Your task to perform on an android device: Open Google Chrome and click the shortcut for Amazon.com Image 0: 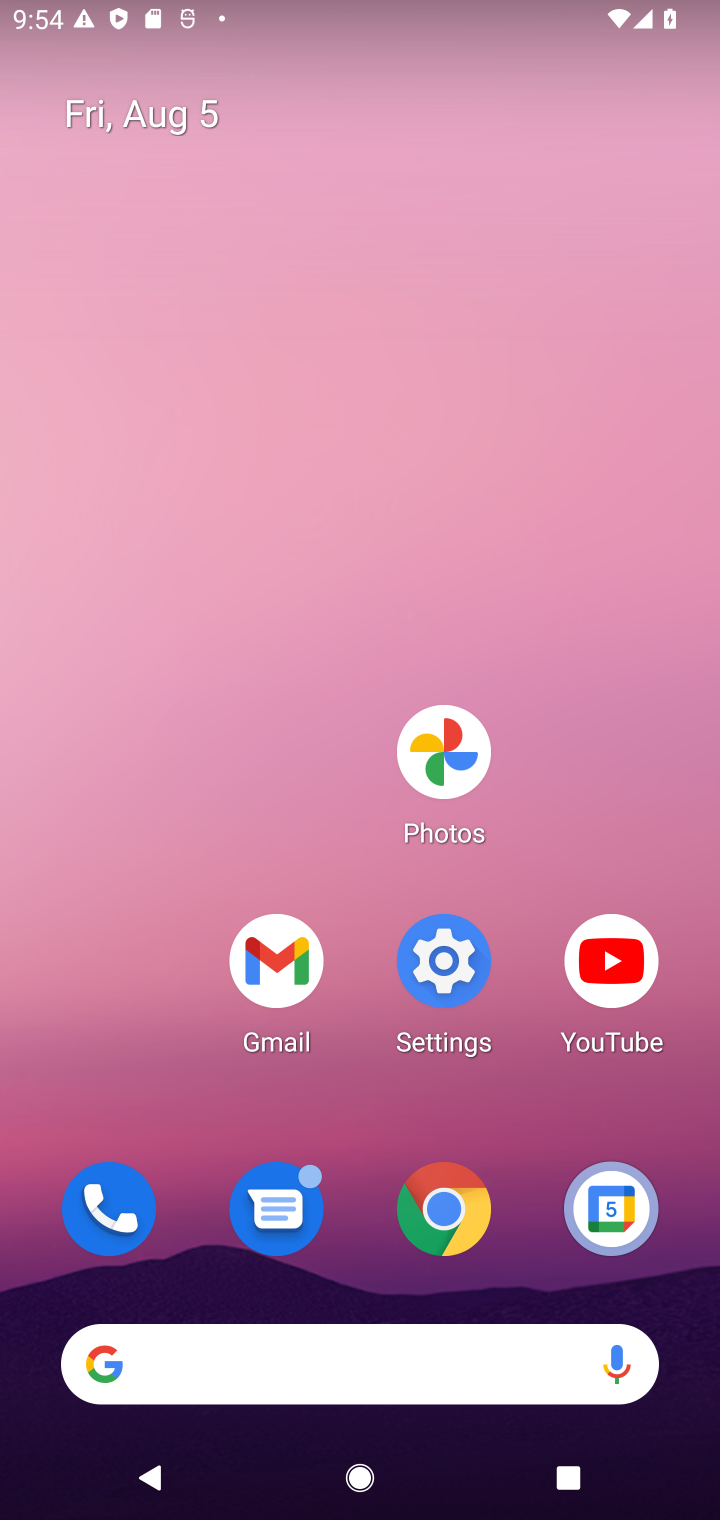
Step 0: drag from (368, 1292) to (403, 220)
Your task to perform on an android device: Open Google Chrome and click the shortcut for Amazon.com Image 1: 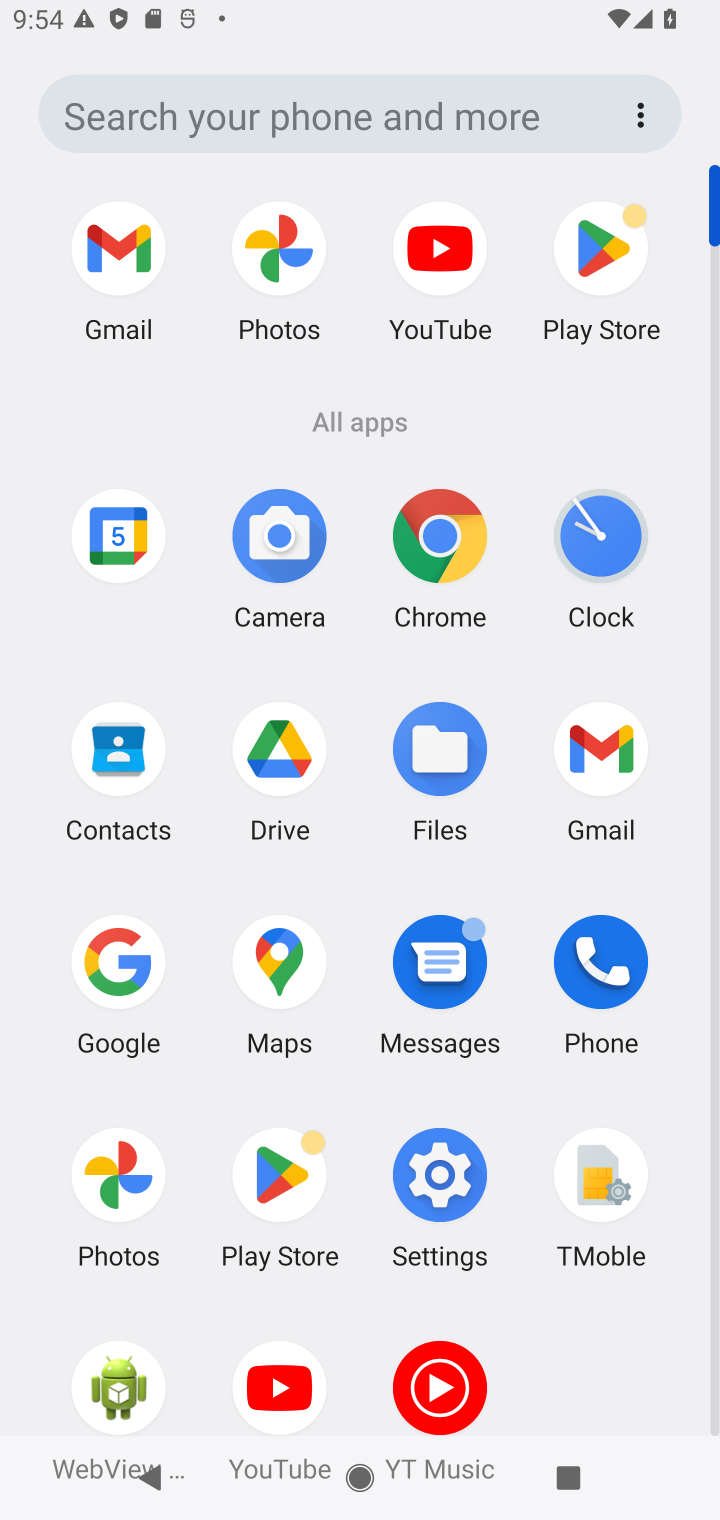
Step 1: drag from (340, 1244) to (373, 406)
Your task to perform on an android device: Open Google Chrome and click the shortcut for Amazon.com Image 2: 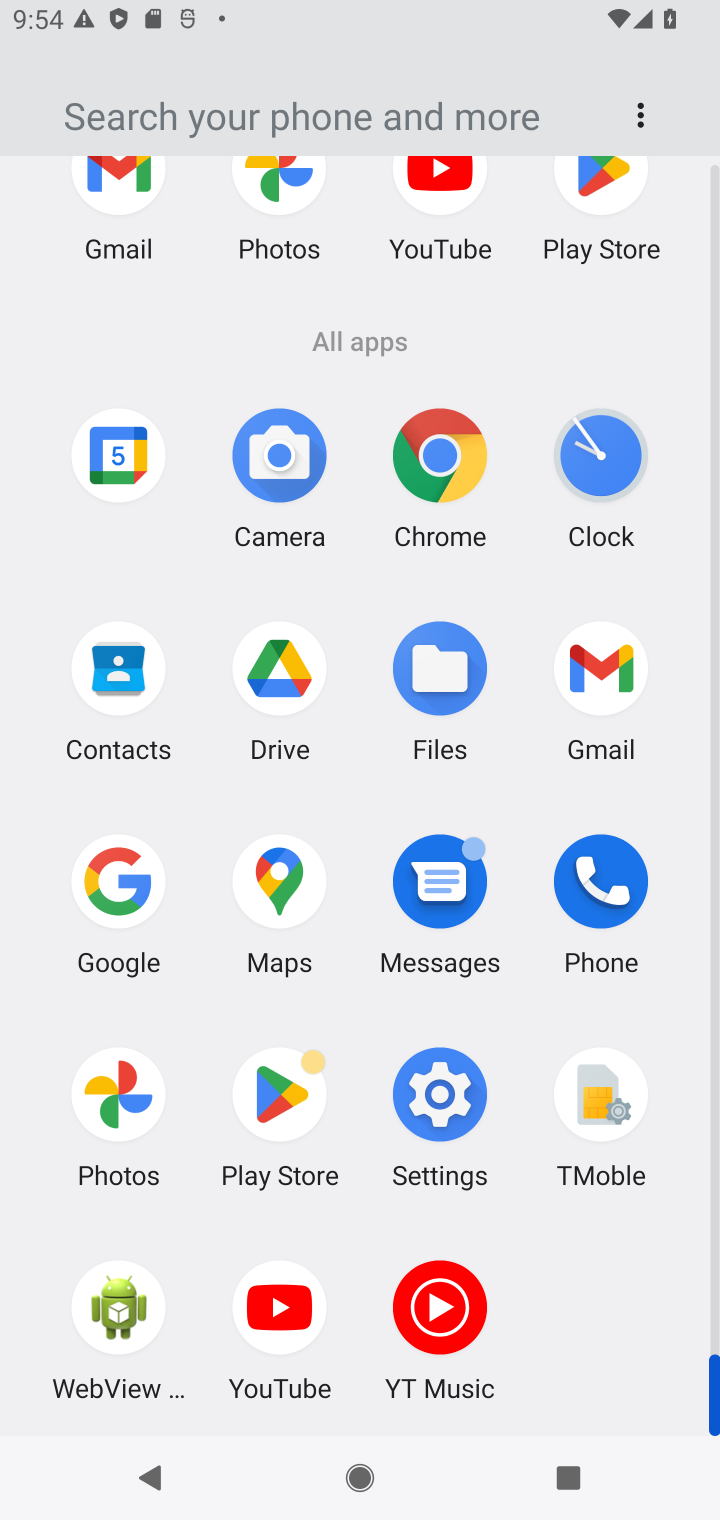
Step 2: click (430, 447)
Your task to perform on an android device: Open Google Chrome and click the shortcut for Amazon.com Image 3: 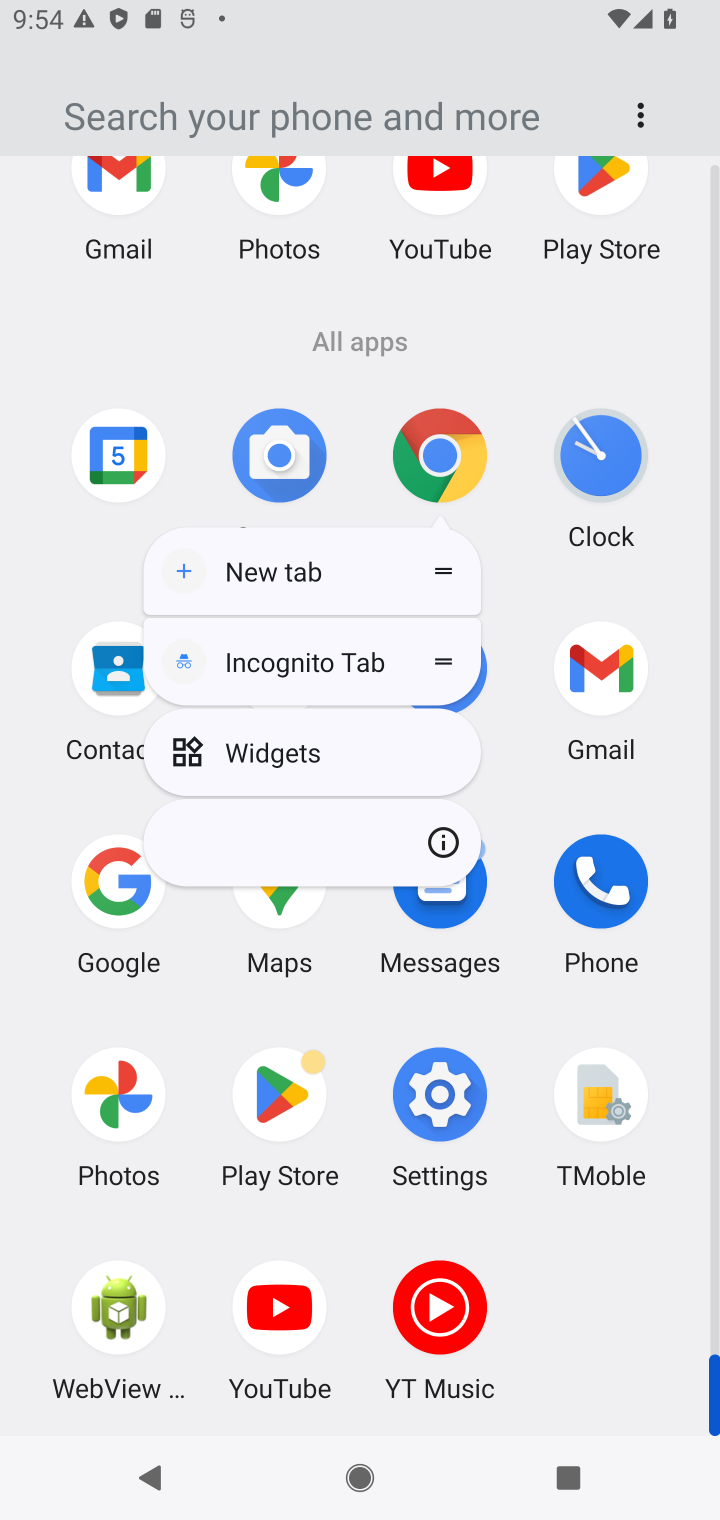
Step 3: click (434, 837)
Your task to perform on an android device: Open Google Chrome and click the shortcut for Amazon.com Image 4: 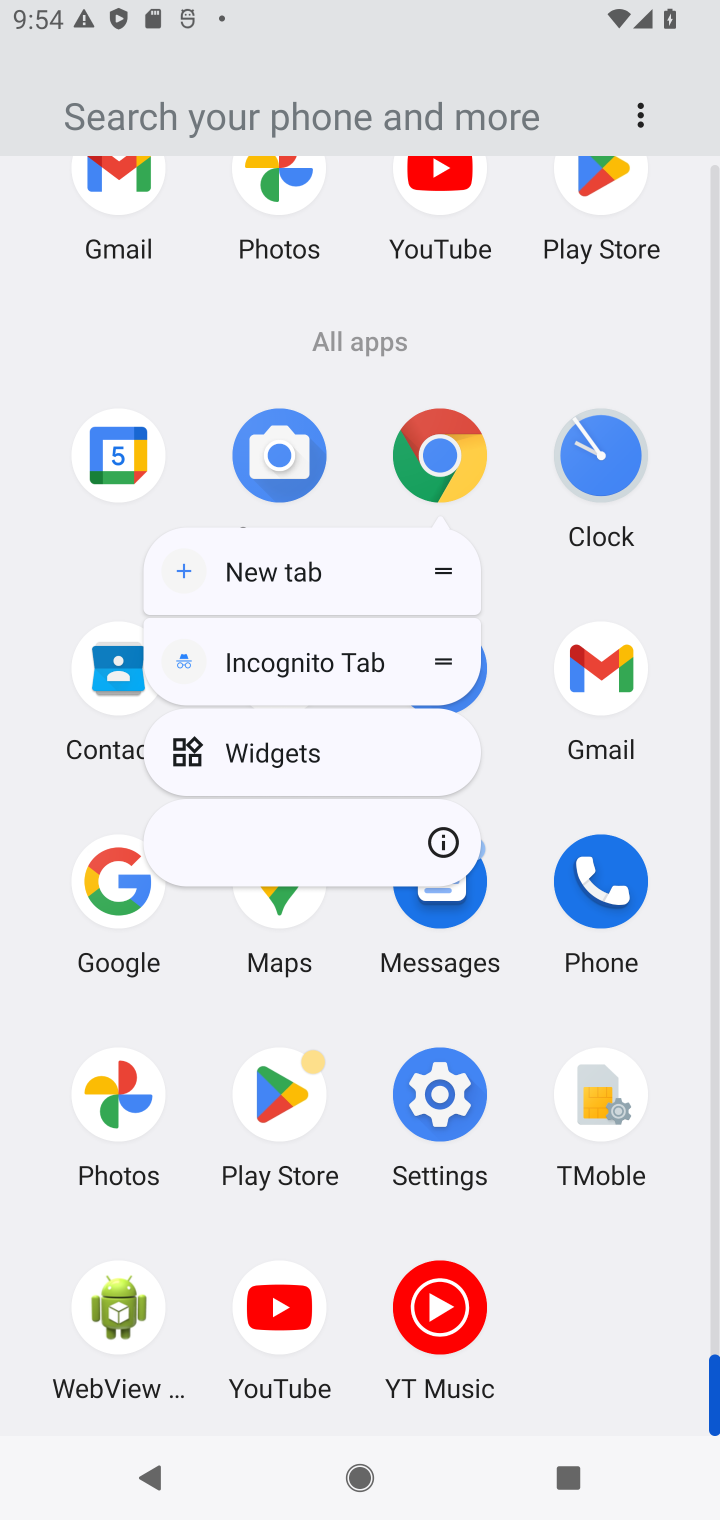
Step 4: click (421, 820)
Your task to perform on an android device: Open Google Chrome and click the shortcut for Amazon.com Image 5: 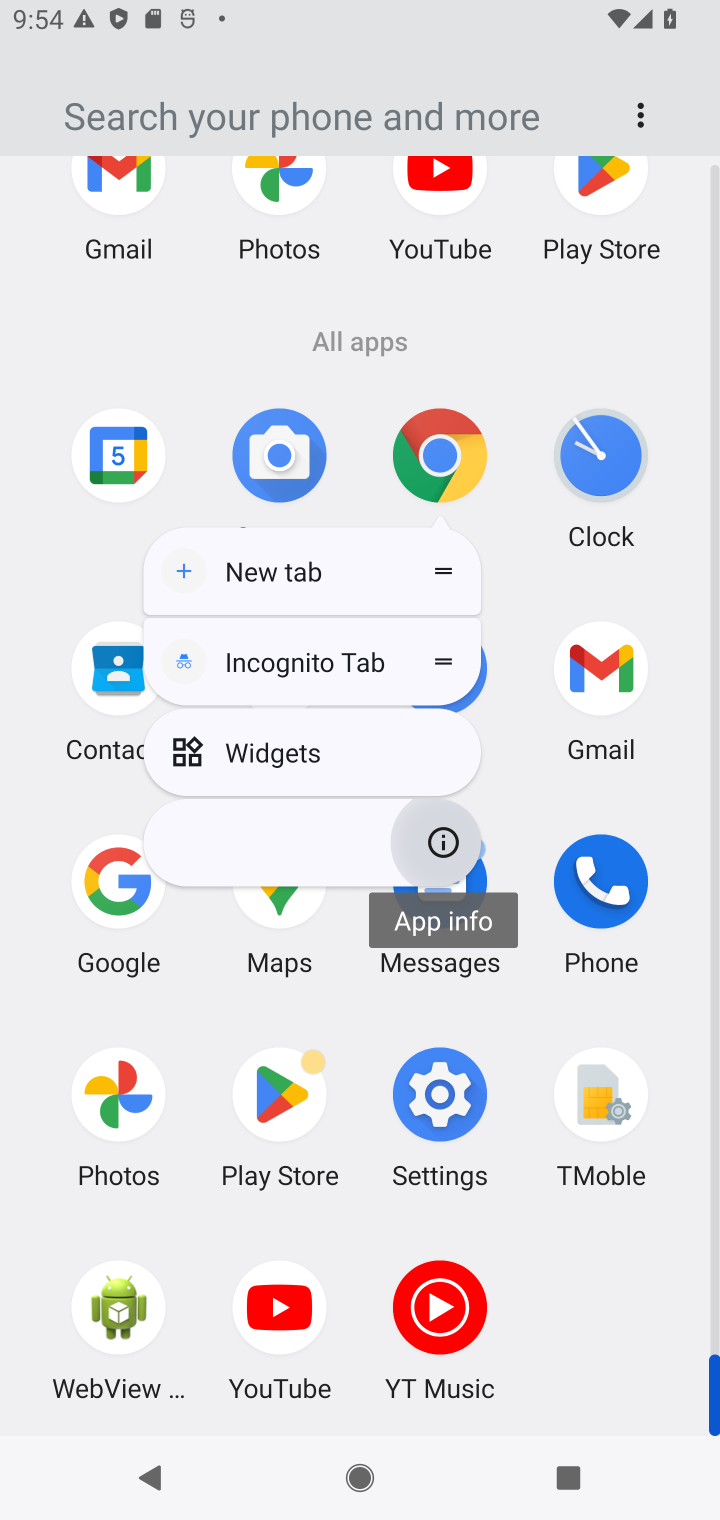
Step 5: click (426, 825)
Your task to perform on an android device: Open Google Chrome and click the shortcut for Amazon.com Image 6: 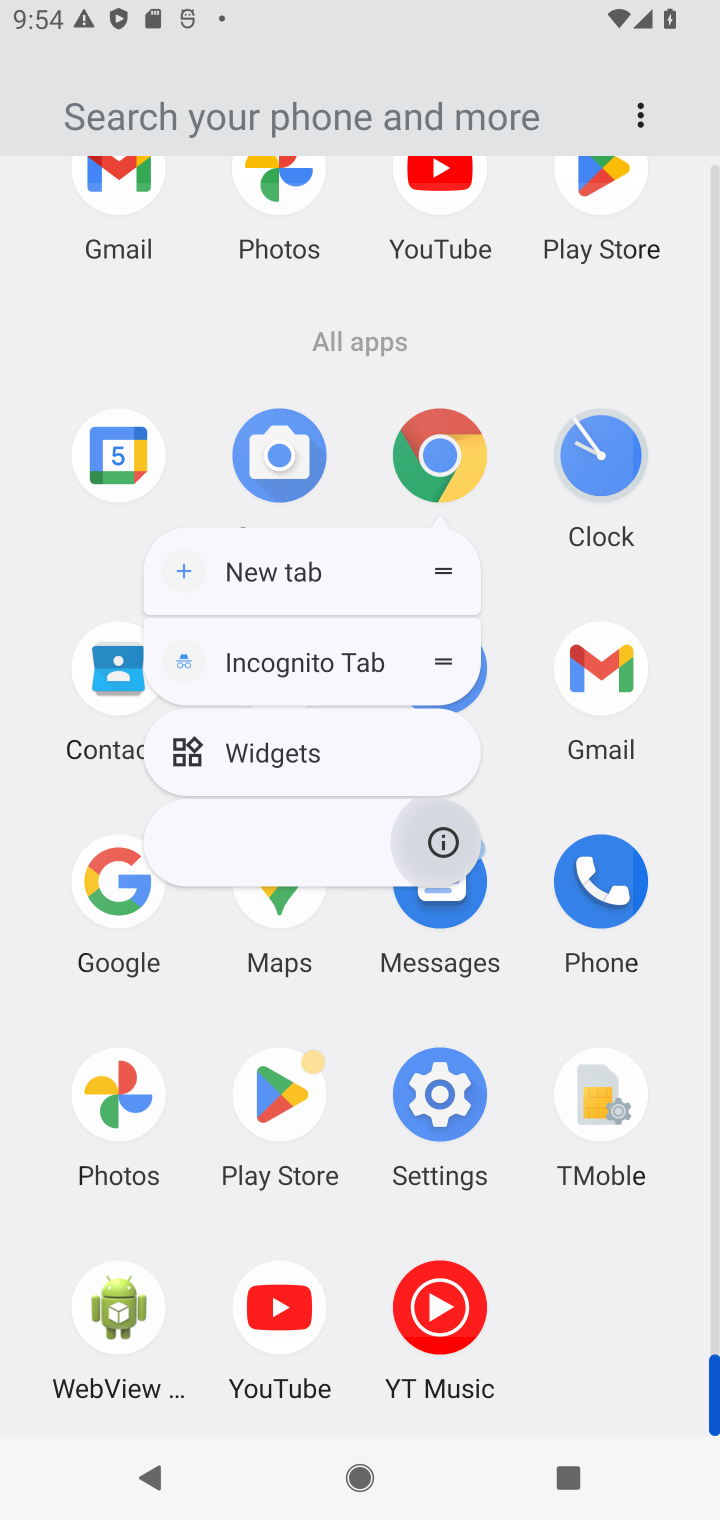
Step 6: click (428, 823)
Your task to perform on an android device: Open Google Chrome and click the shortcut for Amazon.com Image 7: 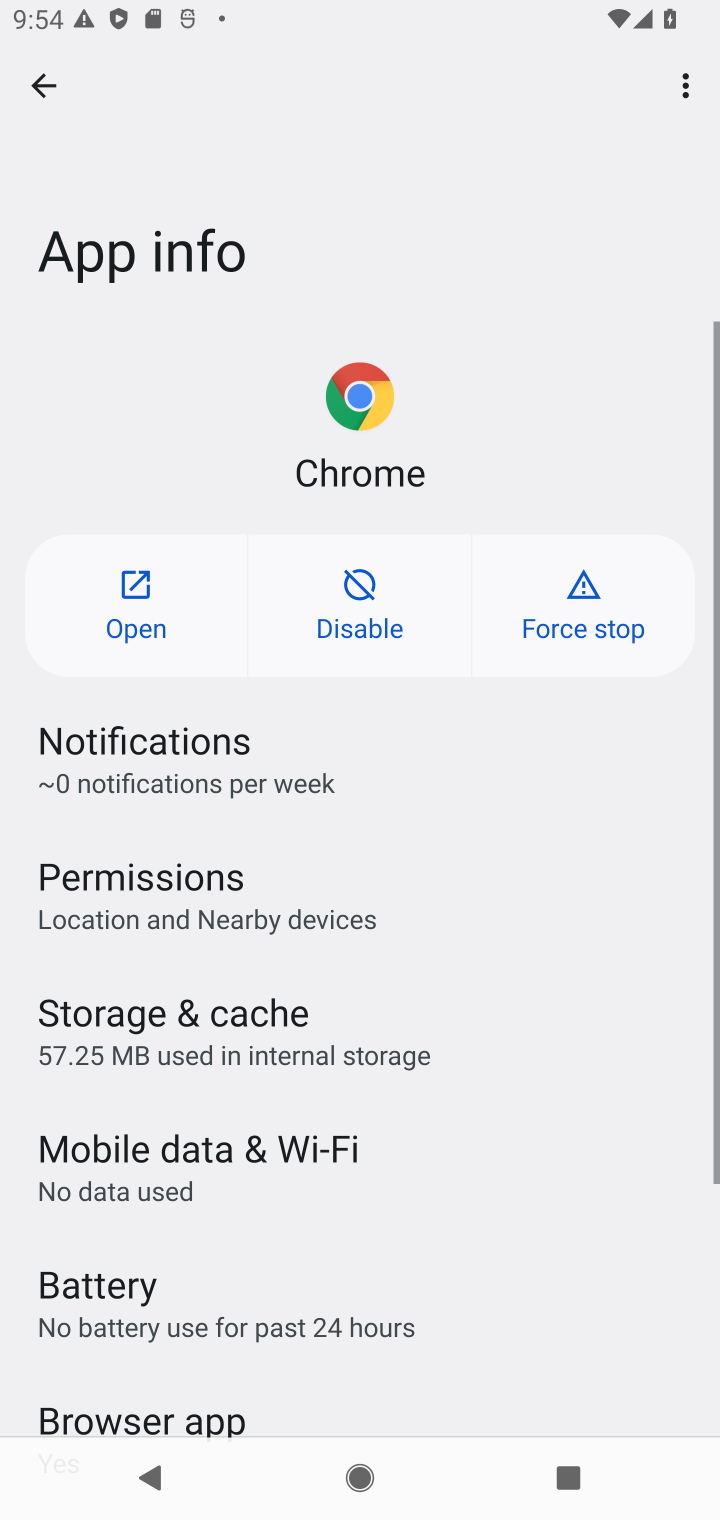
Step 7: click (150, 592)
Your task to perform on an android device: Open Google Chrome and click the shortcut for Amazon.com Image 8: 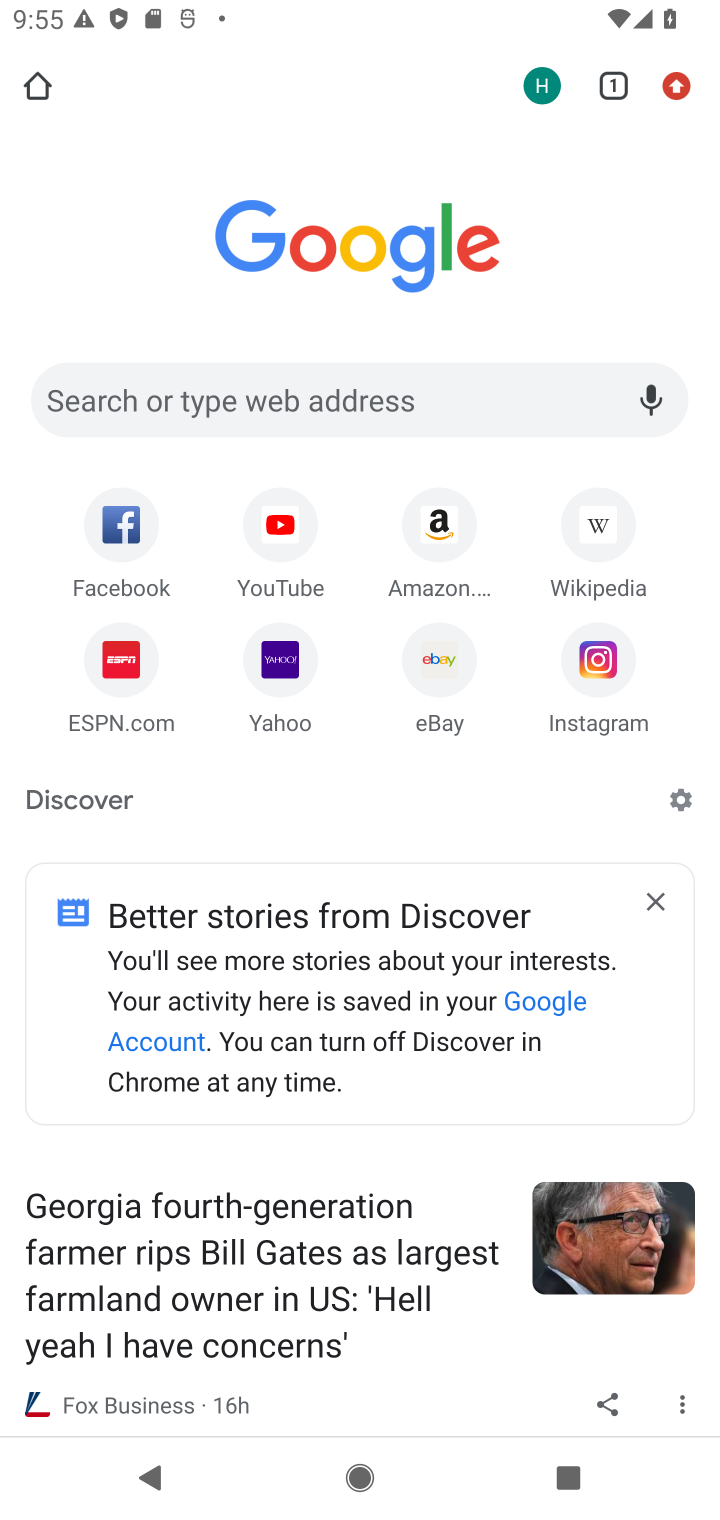
Step 8: click (421, 528)
Your task to perform on an android device: Open Google Chrome and click the shortcut for Amazon.com Image 9: 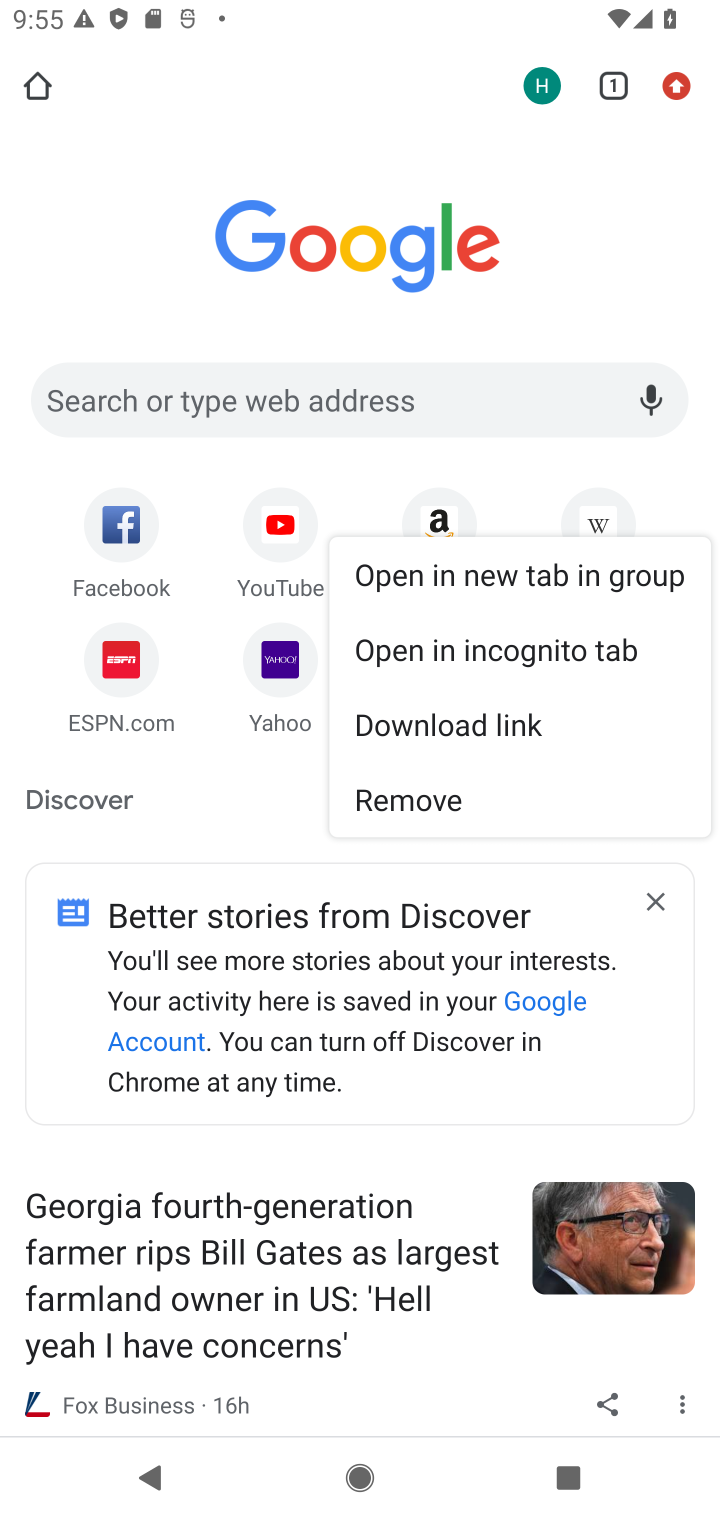
Step 9: click (444, 500)
Your task to perform on an android device: Open Google Chrome and click the shortcut for Amazon.com Image 10: 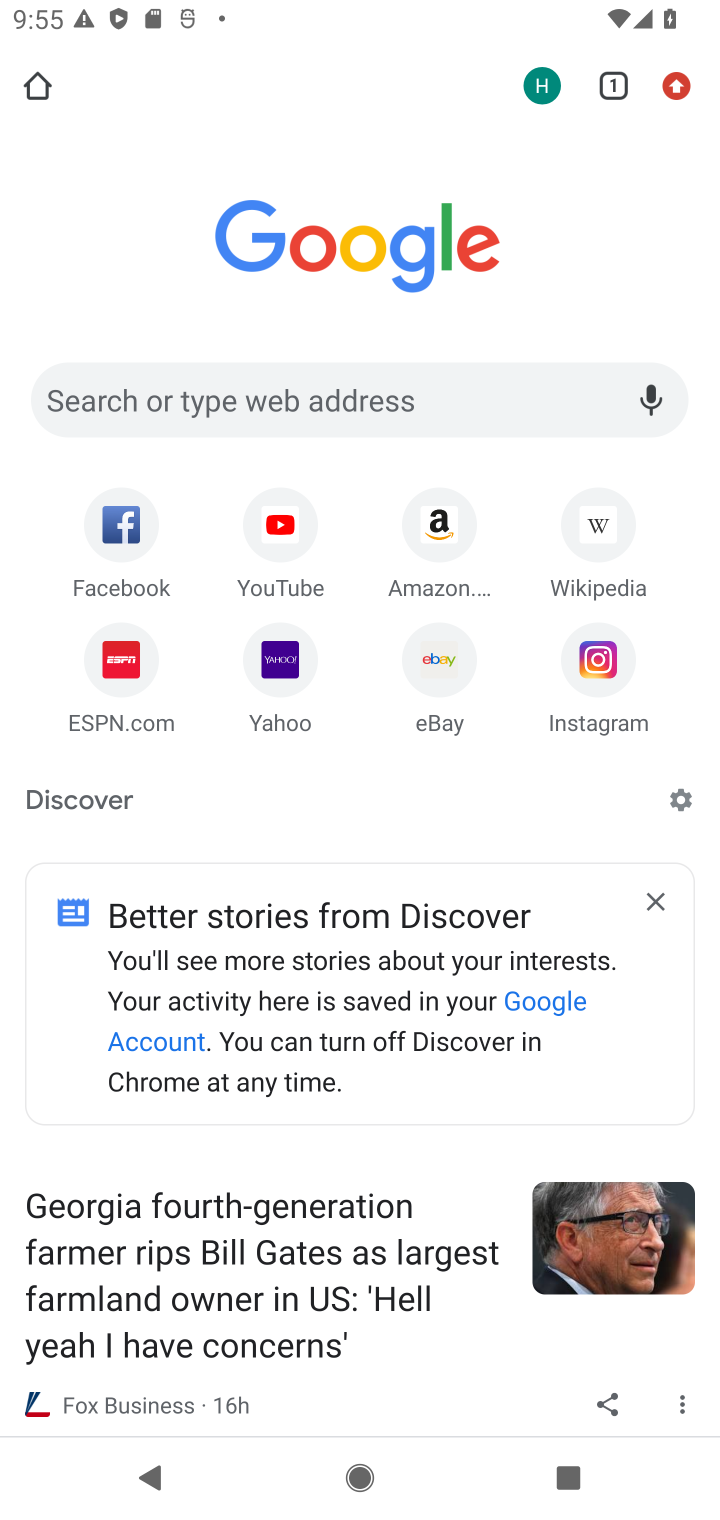
Step 10: click (444, 507)
Your task to perform on an android device: Open Google Chrome and click the shortcut for Amazon.com Image 11: 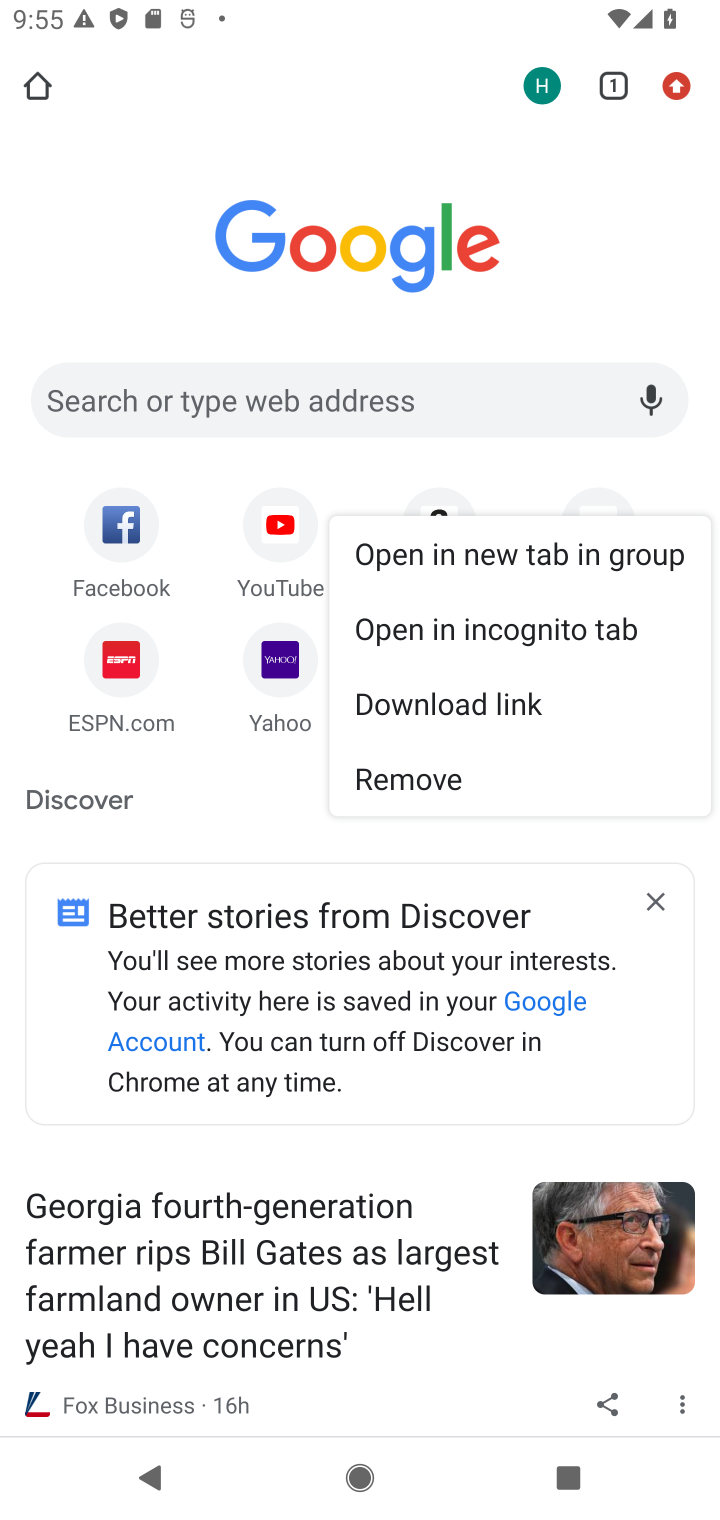
Step 11: click (443, 500)
Your task to perform on an android device: Open Google Chrome and click the shortcut for Amazon.com Image 12: 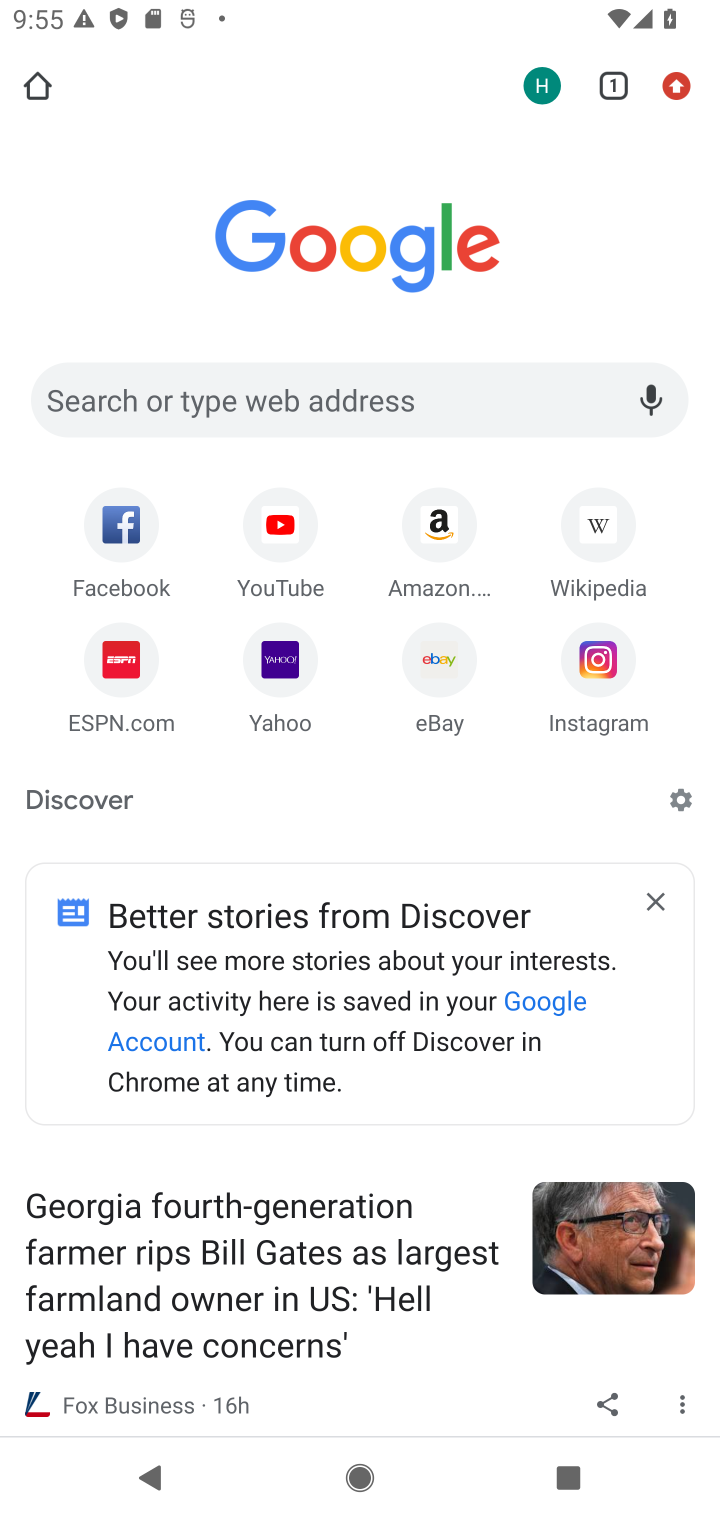
Step 12: click (441, 500)
Your task to perform on an android device: Open Google Chrome and click the shortcut for Amazon.com Image 13: 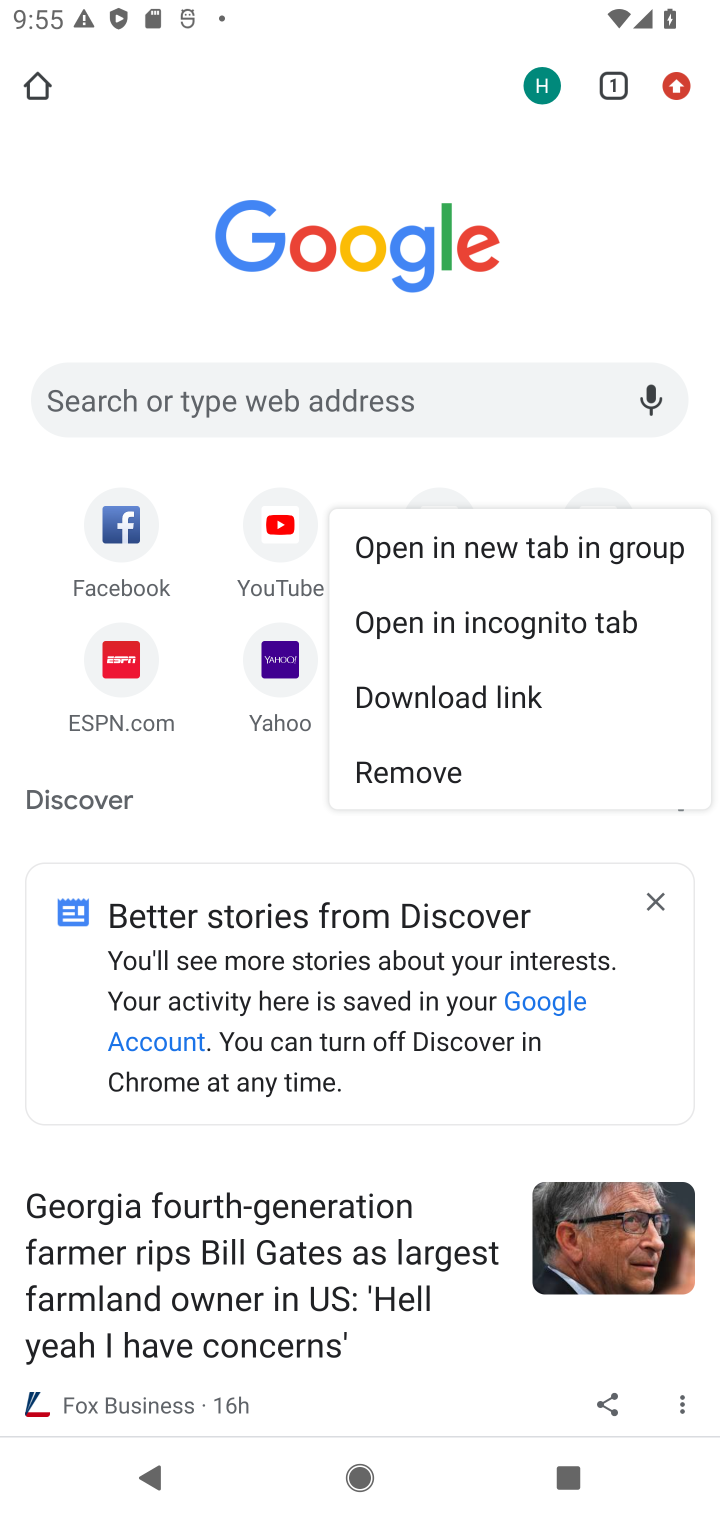
Step 13: click (453, 502)
Your task to perform on an android device: Open Google Chrome and click the shortcut for Amazon.com Image 14: 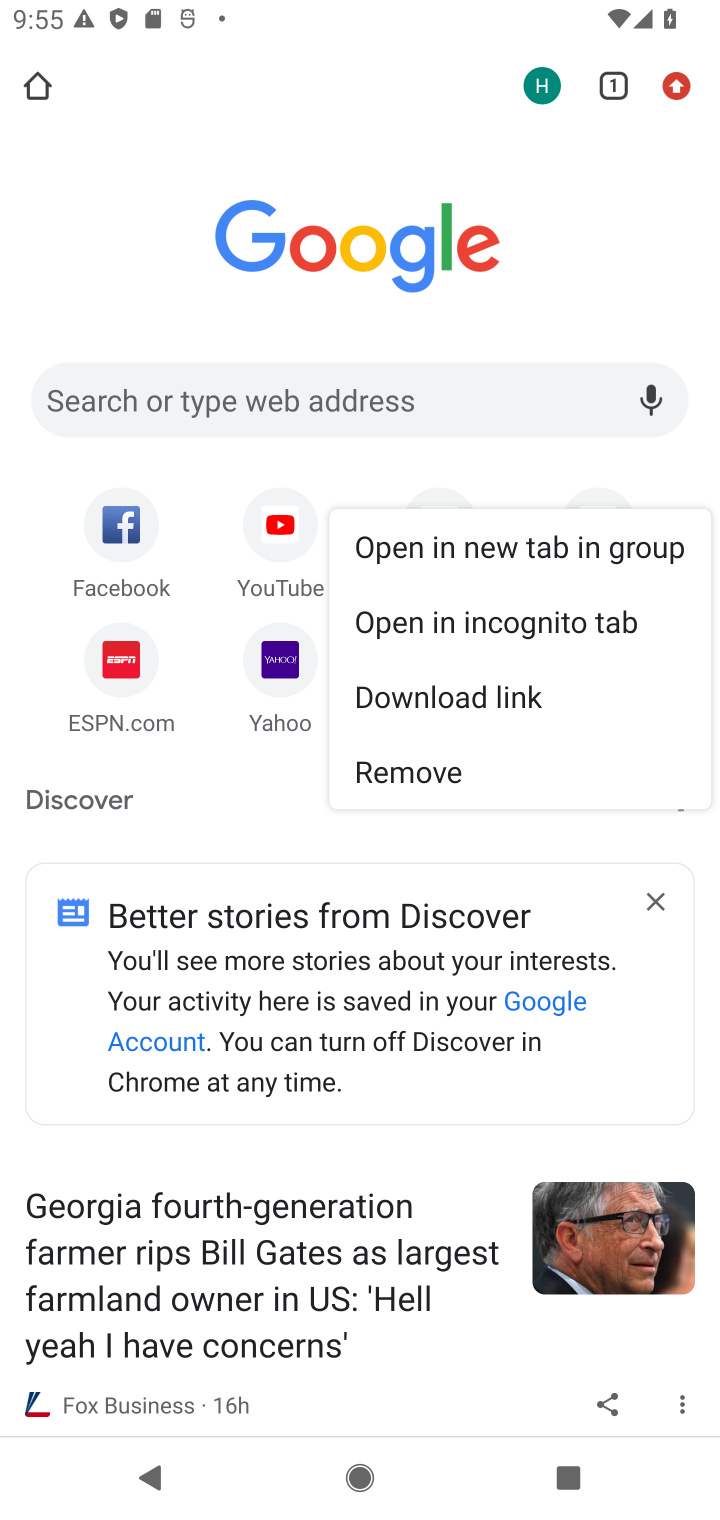
Step 14: drag from (344, 1241) to (417, 347)
Your task to perform on an android device: Open Google Chrome and click the shortcut for Amazon.com Image 15: 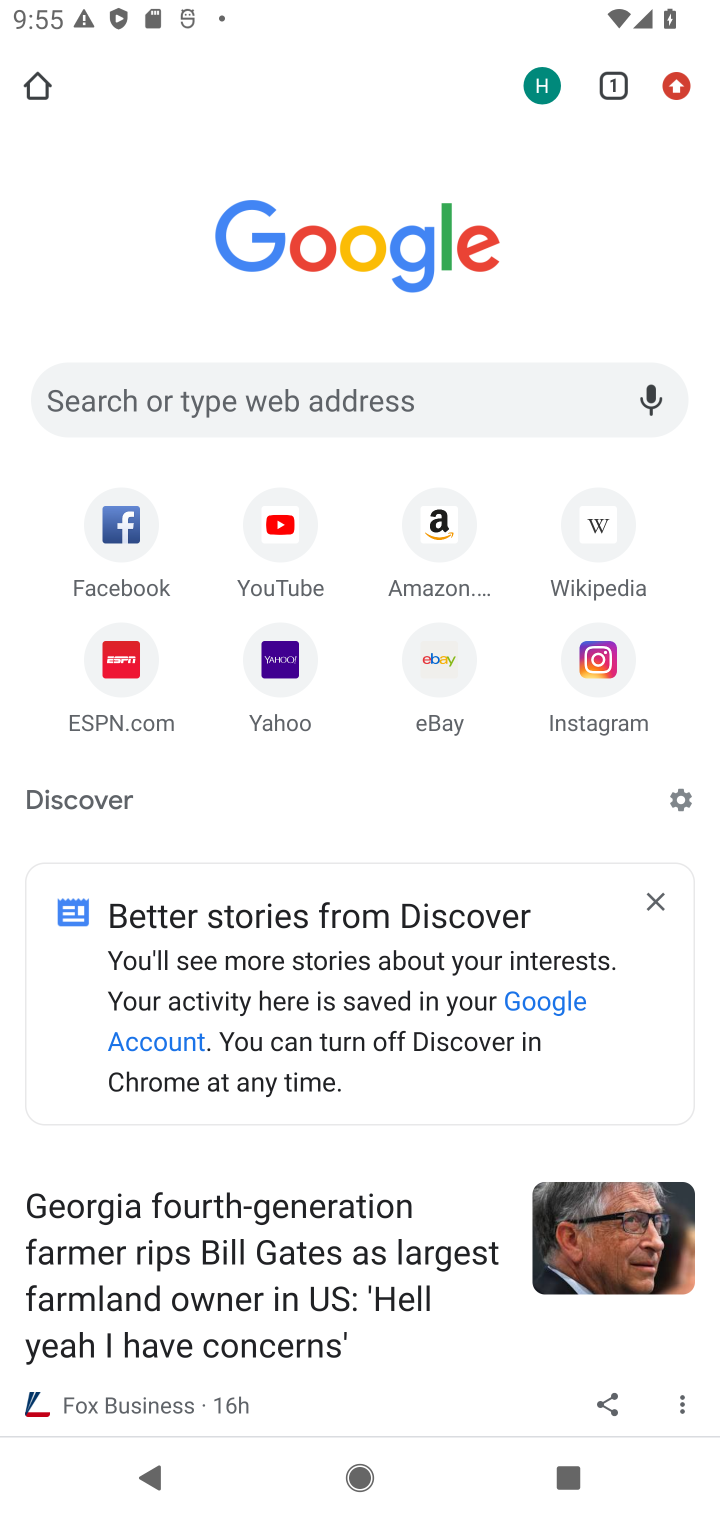
Step 15: drag from (470, 671) to (431, 1427)
Your task to perform on an android device: Open Google Chrome and click the shortcut for Amazon.com Image 16: 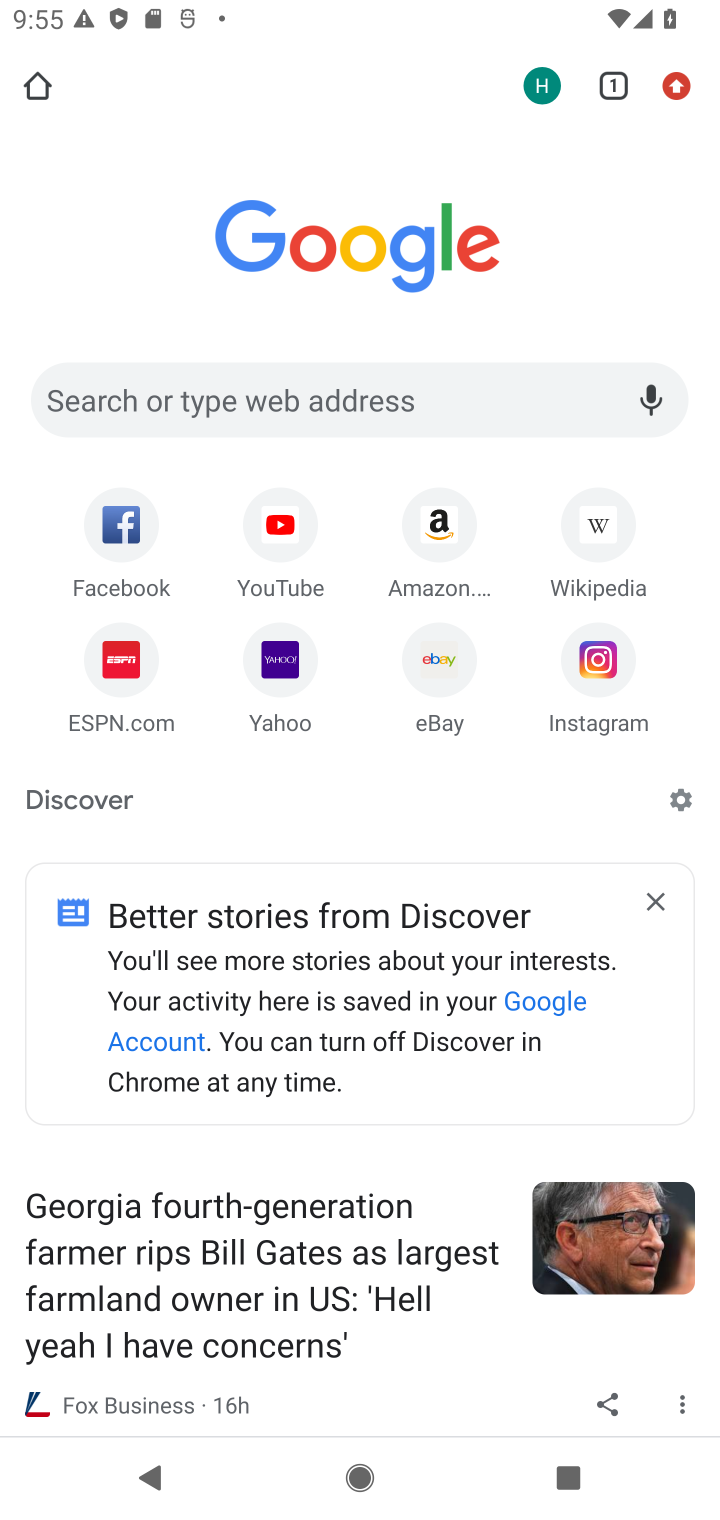
Step 16: click (443, 509)
Your task to perform on an android device: Open Google Chrome and click the shortcut for Amazon.com Image 17: 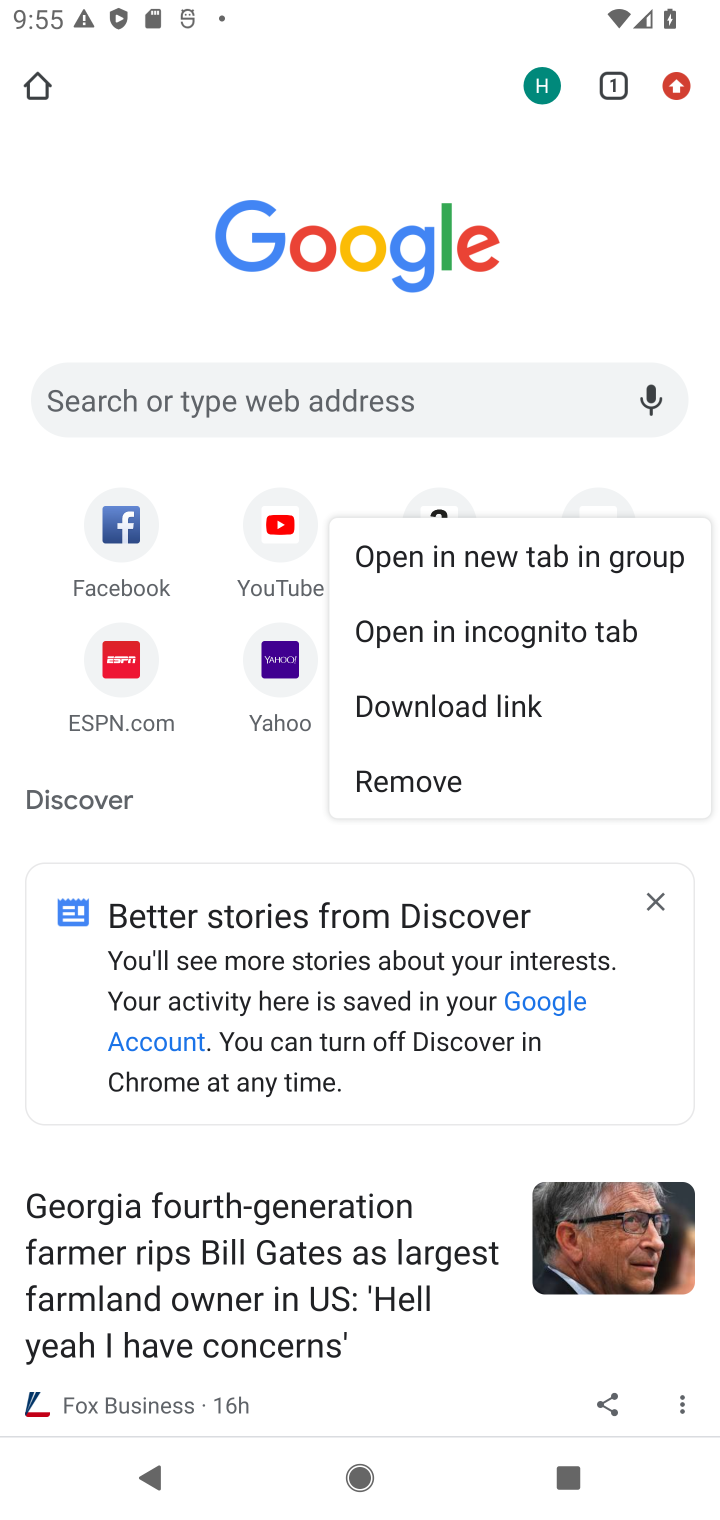
Step 17: click (450, 492)
Your task to perform on an android device: Open Google Chrome and click the shortcut for Amazon.com Image 18: 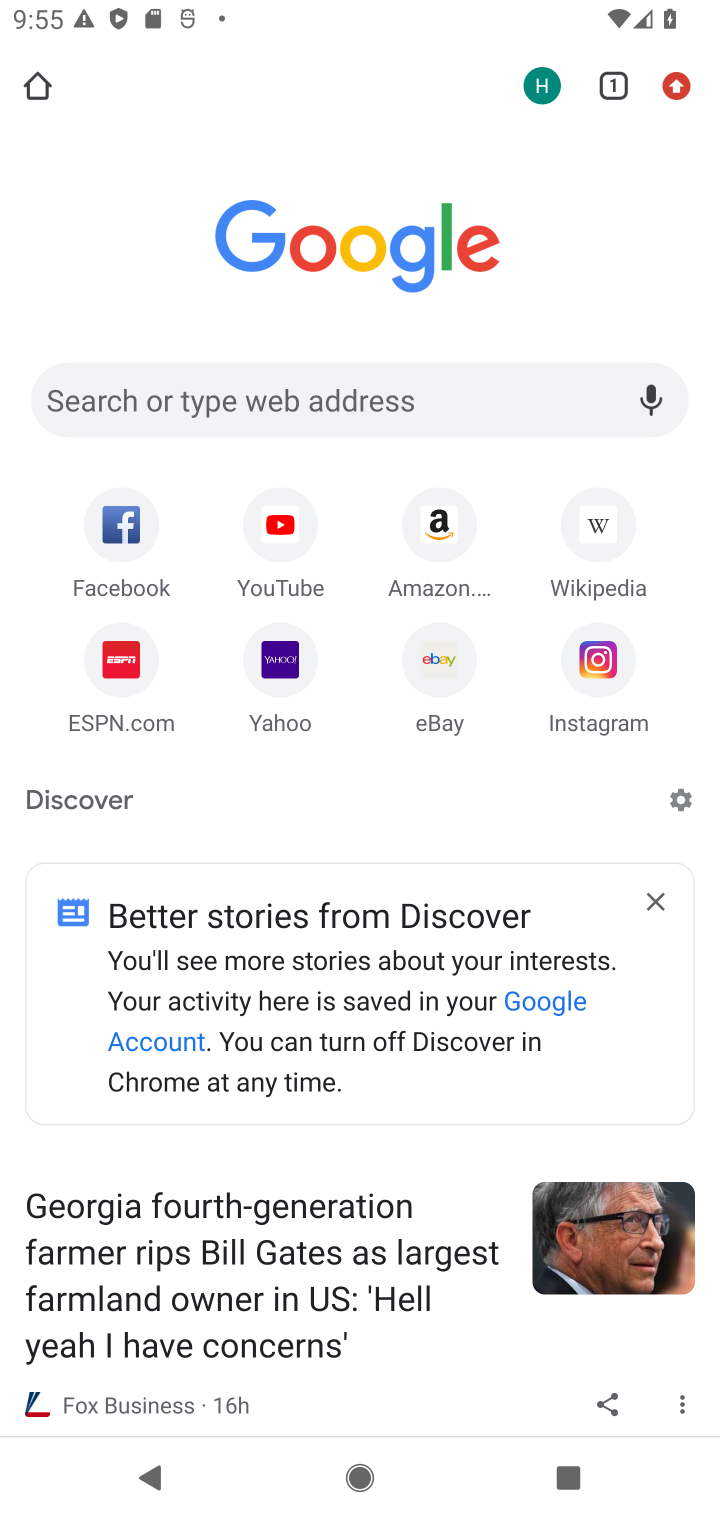
Step 18: click (450, 492)
Your task to perform on an android device: Open Google Chrome and click the shortcut for Amazon.com Image 19: 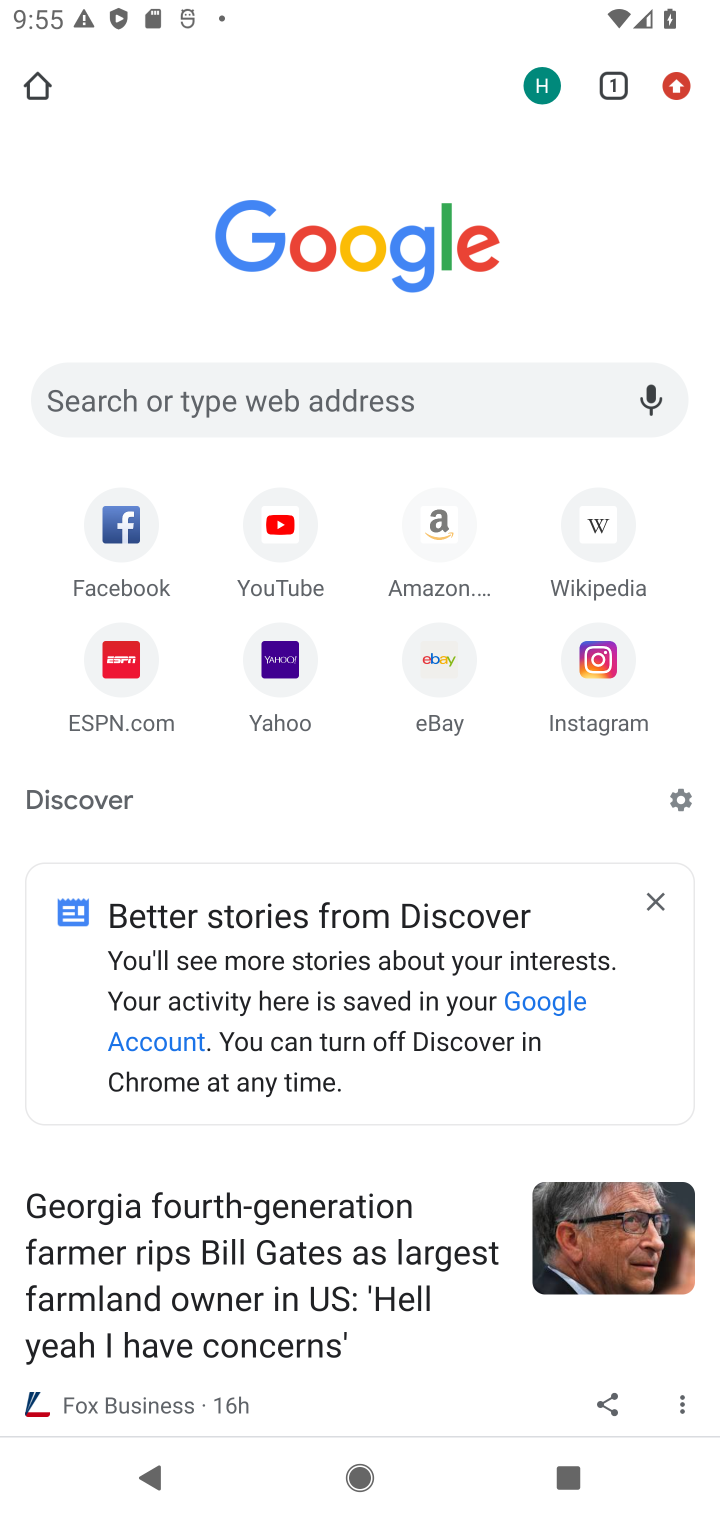
Step 19: click (446, 509)
Your task to perform on an android device: Open Google Chrome and click the shortcut for Amazon.com Image 20: 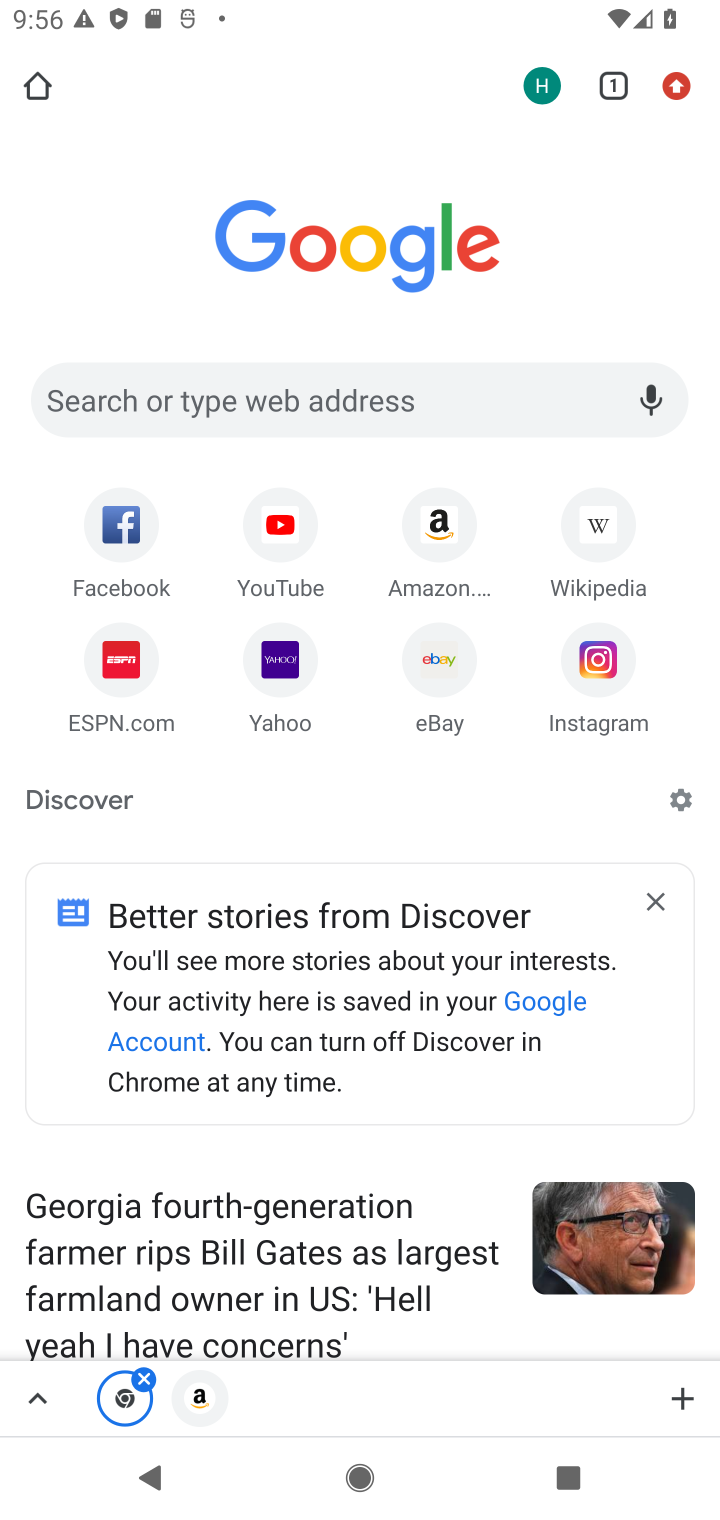
Step 20: click (189, 1394)
Your task to perform on an android device: Open Google Chrome and click the shortcut for Amazon.com Image 21: 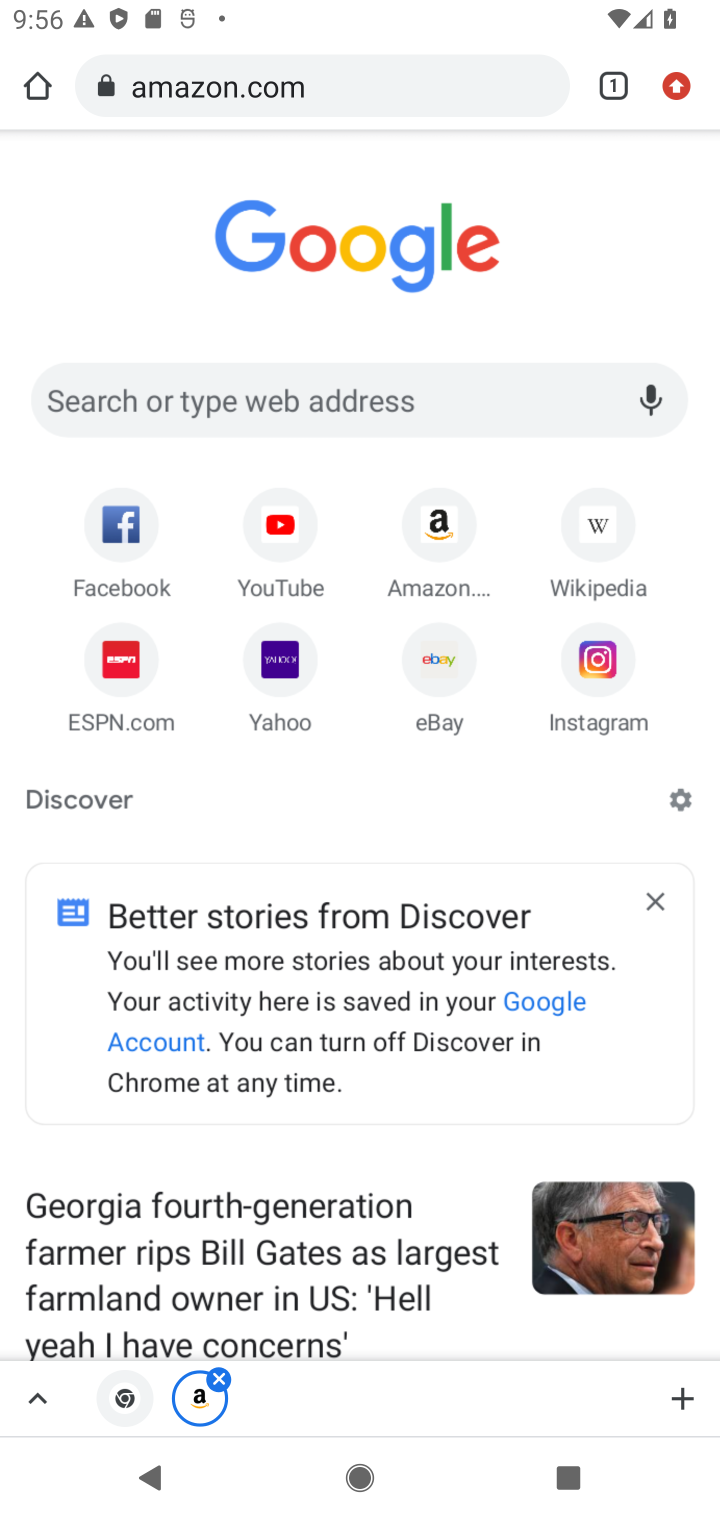
Step 21: drag from (302, 1191) to (406, 263)
Your task to perform on an android device: Open Google Chrome and click the shortcut for Amazon.com Image 22: 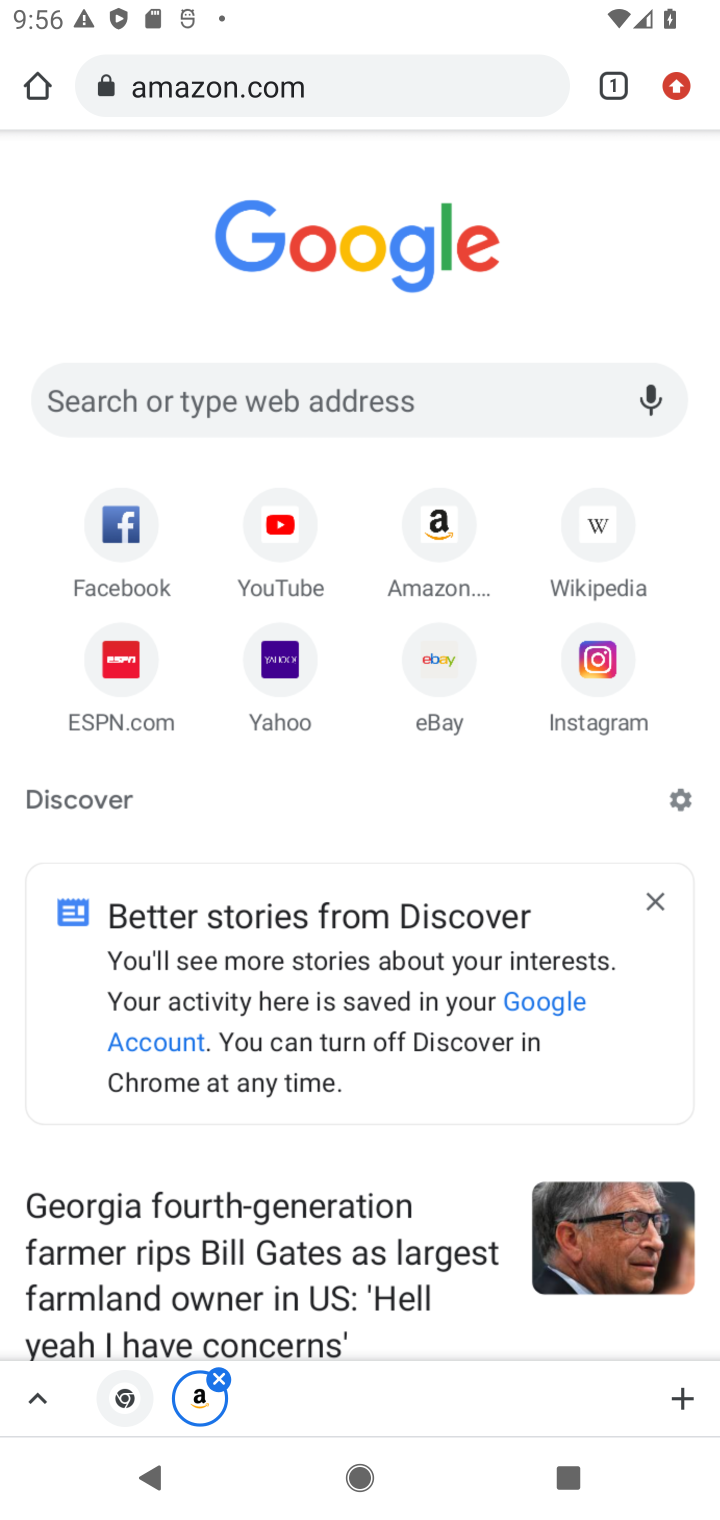
Step 22: click (430, 526)
Your task to perform on an android device: Open Google Chrome and click the shortcut for Amazon.com Image 23: 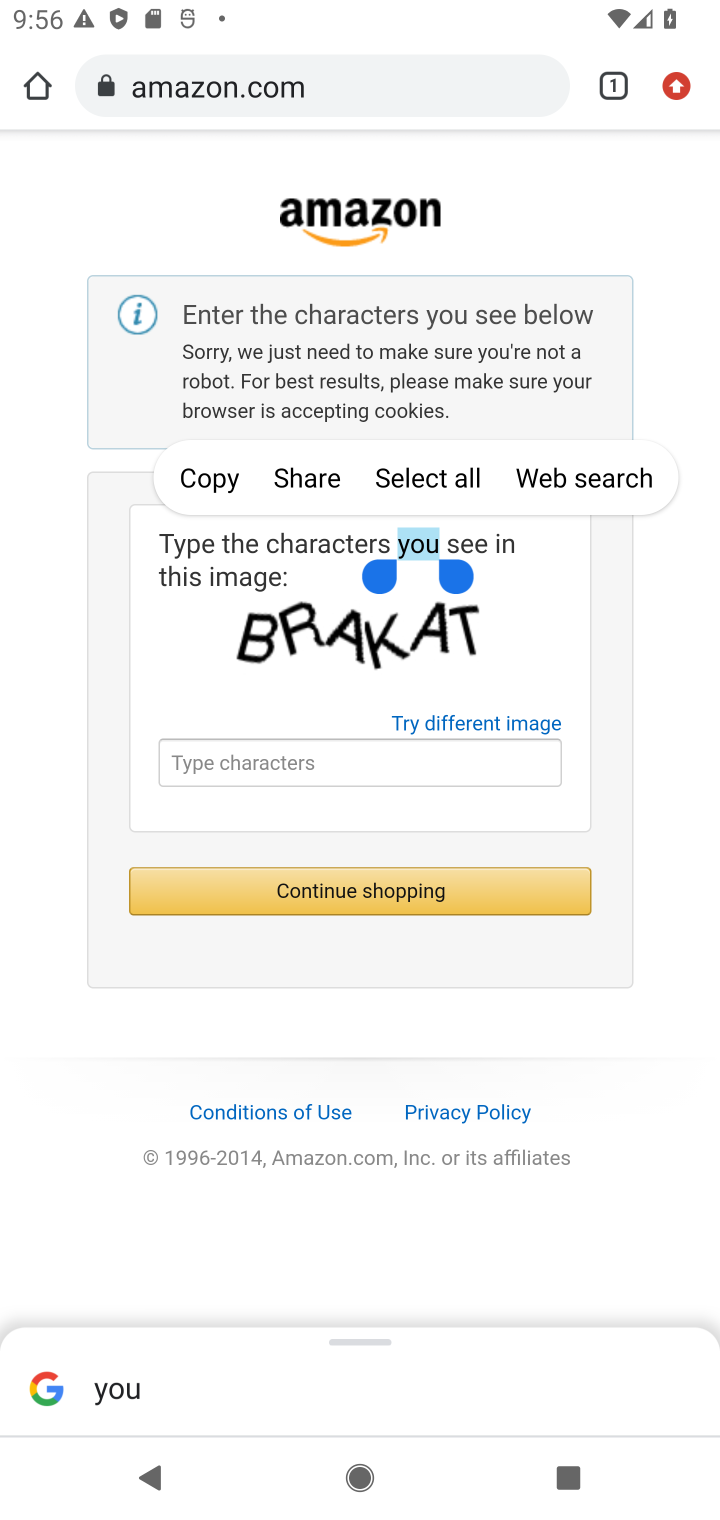
Step 23: task complete